Your task to perform on an android device: turn off airplane mode Image 0: 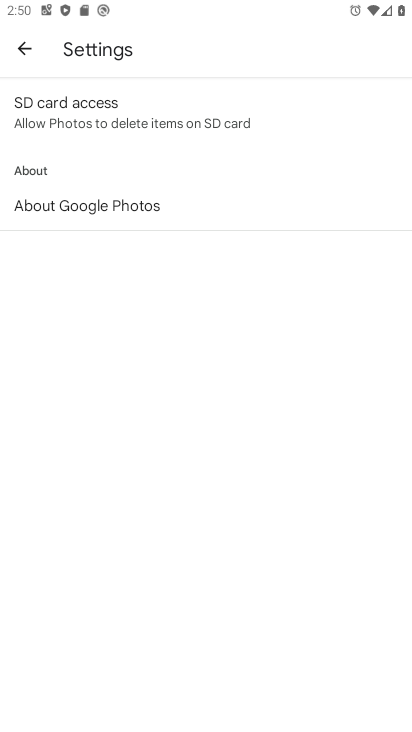
Step 0: press home button
Your task to perform on an android device: turn off airplane mode Image 1: 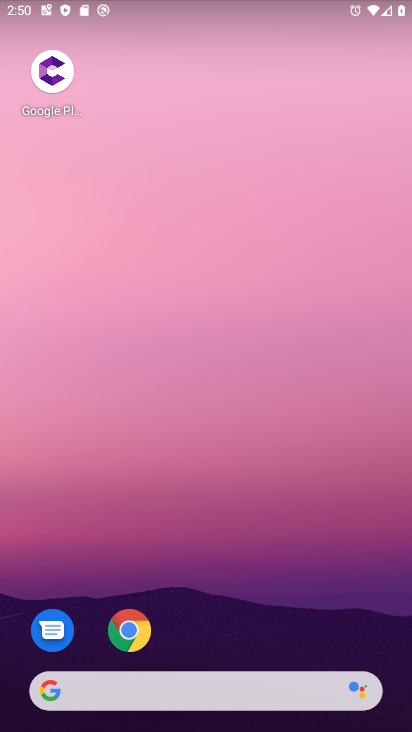
Step 1: drag from (134, 663) to (251, 249)
Your task to perform on an android device: turn off airplane mode Image 2: 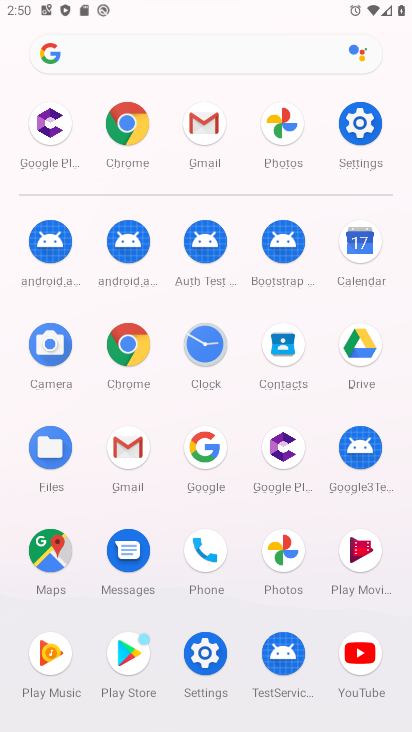
Step 2: click (353, 126)
Your task to perform on an android device: turn off airplane mode Image 3: 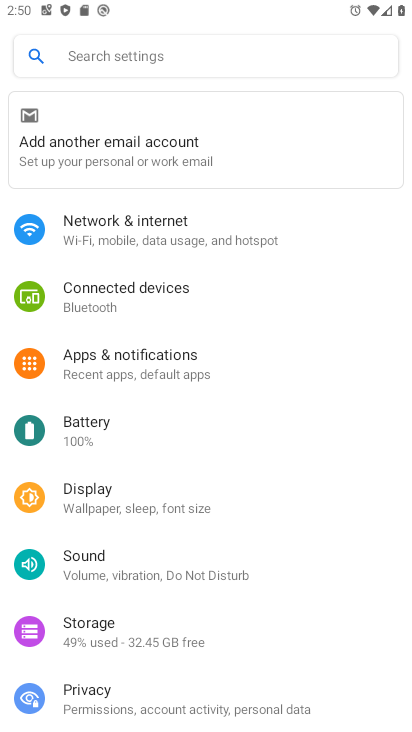
Step 3: click (144, 233)
Your task to perform on an android device: turn off airplane mode Image 4: 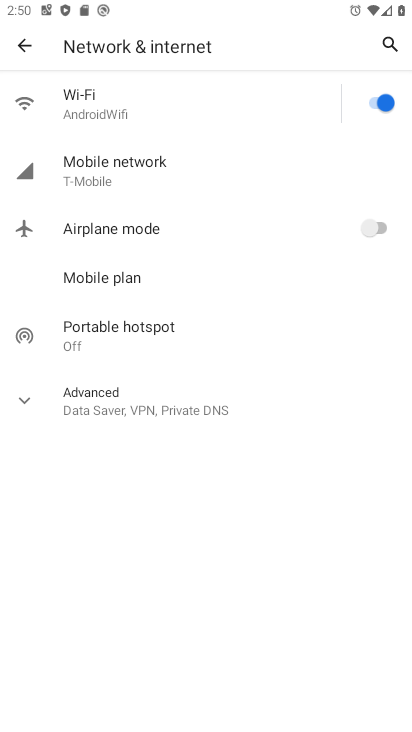
Step 4: task complete